Your task to perform on an android device: Check the news Image 0: 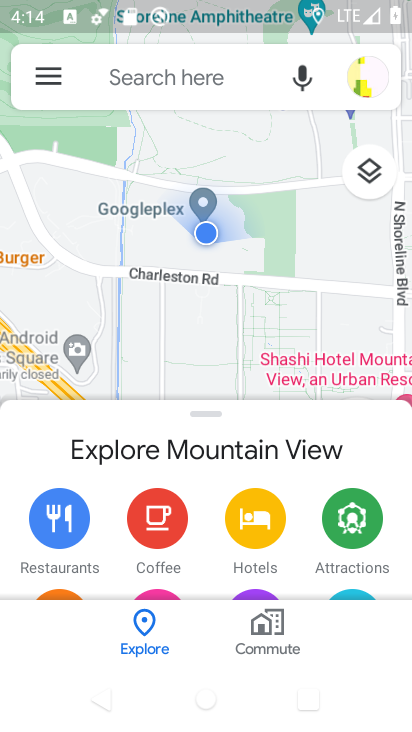
Step 0: press home button
Your task to perform on an android device: Check the news Image 1: 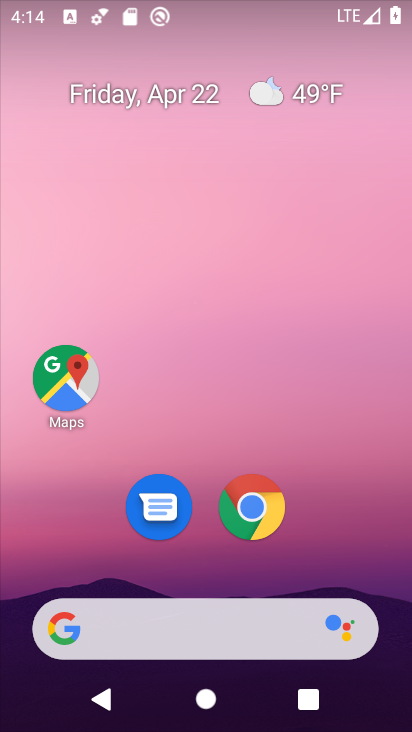
Step 1: task complete